Your task to perform on an android device: Do I have any events tomorrow? Image 0: 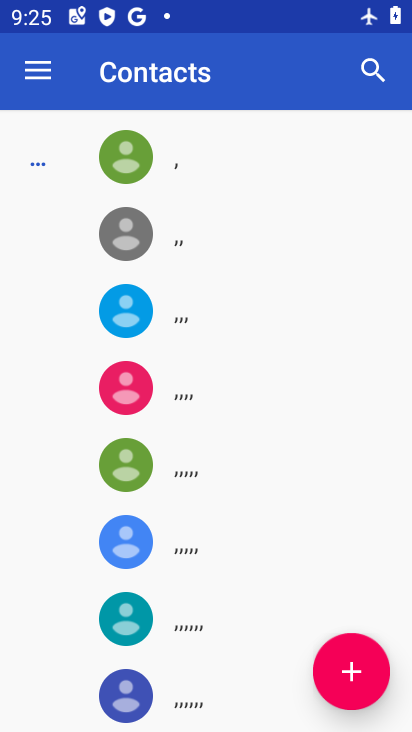
Step 0: press home button
Your task to perform on an android device: Do I have any events tomorrow? Image 1: 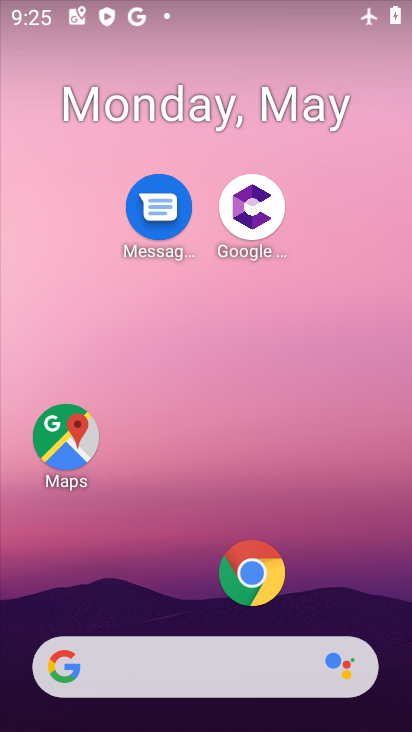
Step 1: drag from (197, 622) to (94, 12)
Your task to perform on an android device: Do I have any events tomorrow? Image 2: 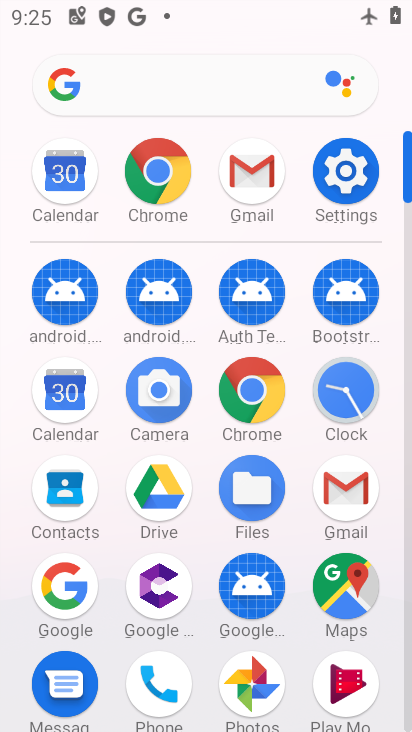
Step 2: click (64, 404)
Your task to perform on an android device: Do I have any events tomorrow? Image 3: 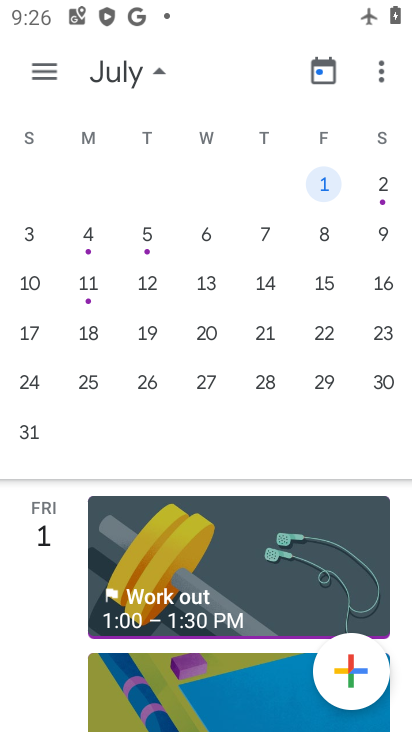
Step 3: drag from (35, 383) to (409, 622)
Your task to perform on an android device: Do I have any events tomorrow? Image 4: 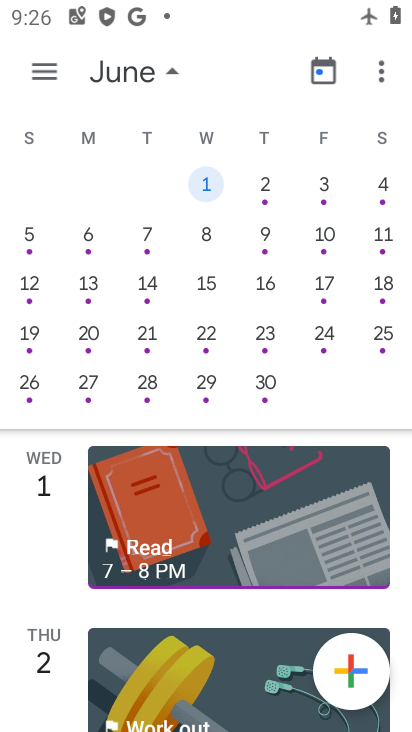
Step 4: drag from (67, 323) to (407, 368)
Your task to perform on an android device: Do I have any events tomorrow? Image 5: 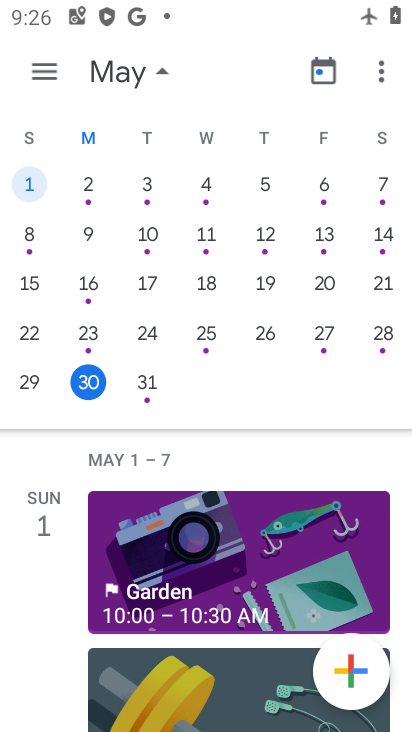
Step 5: click (151, 397)
Your task to perform on an android device: Do I have any events tomorrow? Image 6: 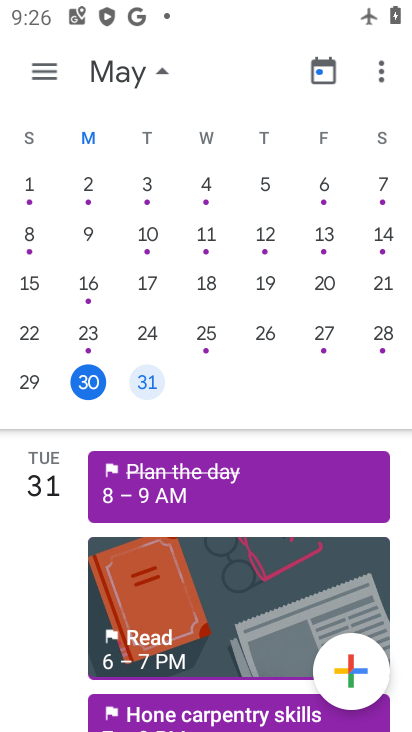
Step 6: task complete